Your task to perform on an android device: Open sound settings Image 0: 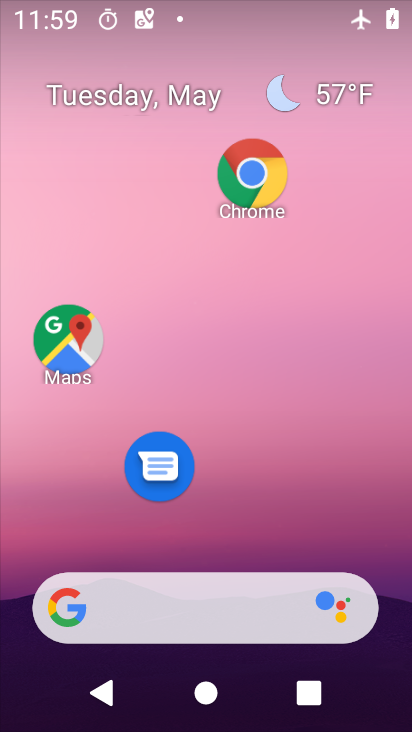
Step 0: drag from (193, 563) to (204, 73)
Your task to perform on an android device: Open sound settings Image 1: 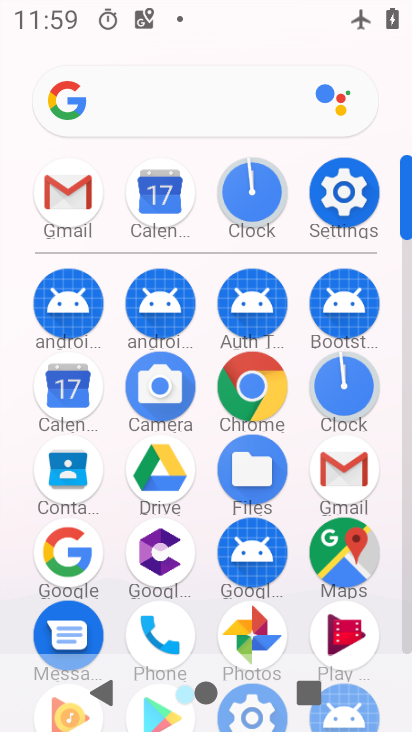
Step 1: click (337, 190)
Your task to perform on an android device: Open sound settings Image 2: 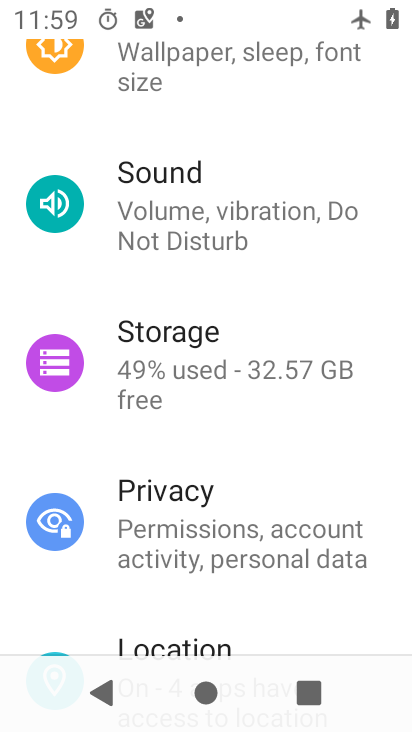
Step 2: click (163, 221)
Your task to perform on an android device: Open sound settings Image 3: 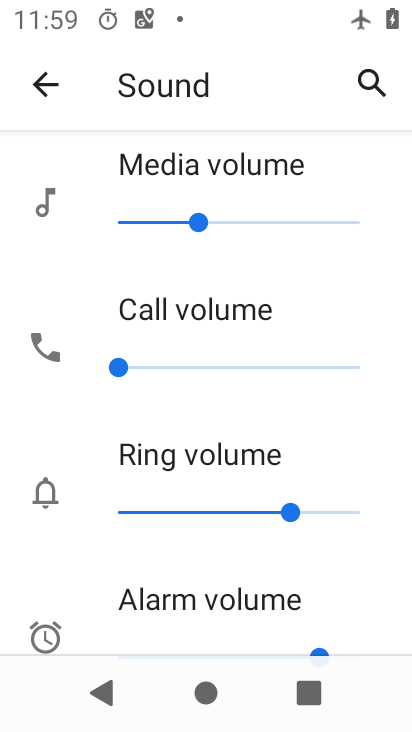
Step 3: task complete